Your task to perform on an android device: Open Chrome and go to the settings page Image 0: 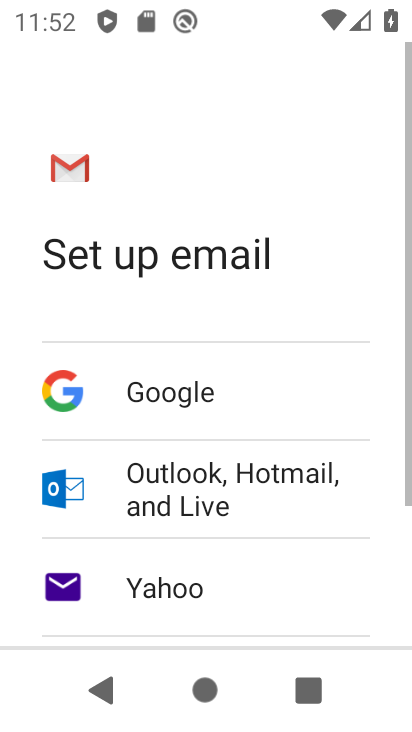
Step 0: press home button
Your task to perform on an android device: Open Chrome and go to the settings page Image 1: 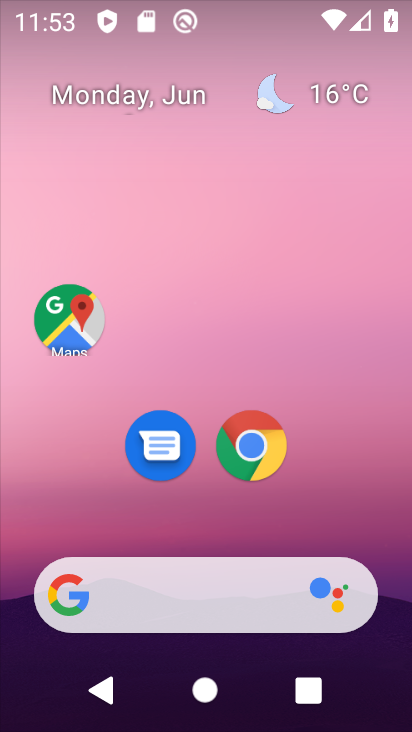
Step 1: click (253, 451)
Your task to perform on an android device: Open Chrome and go to the settings page Image 2: 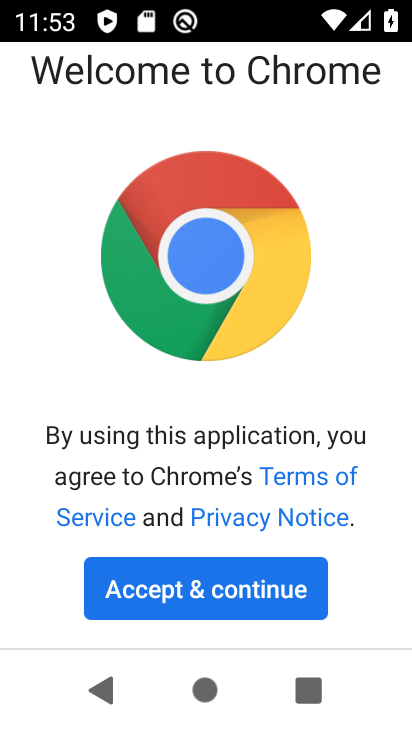
Step 2: click (184, 598)
Your task to perform on an android device: Open Chrome and go to the settings page Image 3: 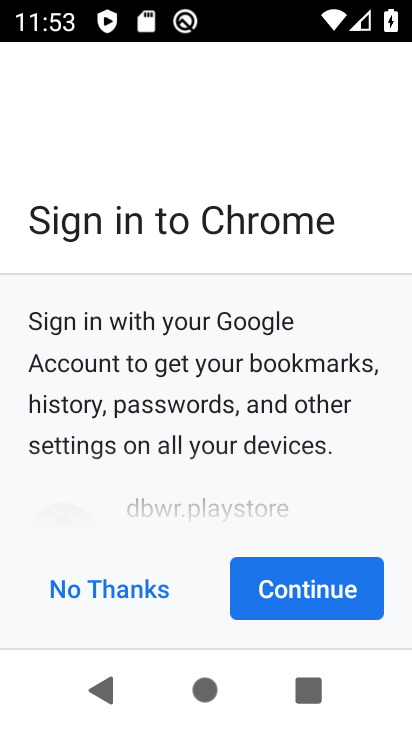
Step 3: click (311, 593)
Your task to perform on an android device: Open Chrome and go to the settings page Image 4: 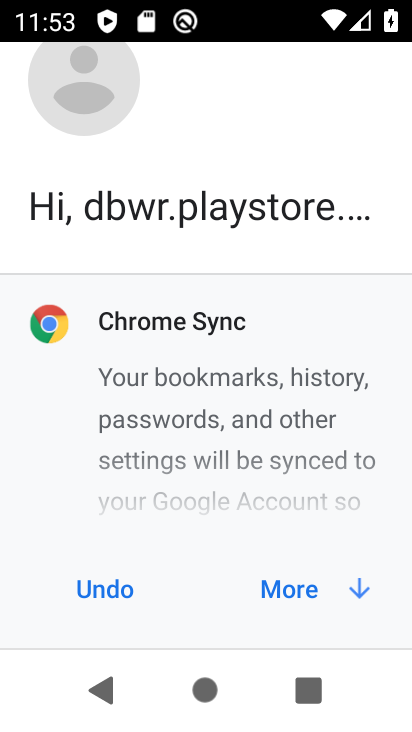
Step 4: click (284, 596)
Your task to perform on an android device: Open Chrome and go to the settings page Image 5: 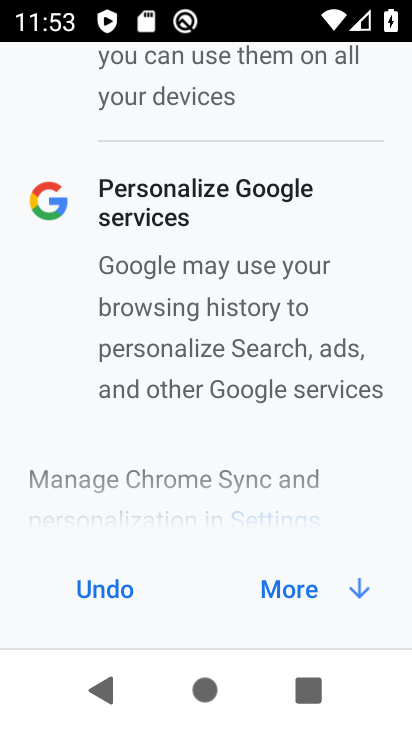
Step 5: click (285, 605)
Your task to perform on an android device: Open Chrome and go to the settings page Image 6: 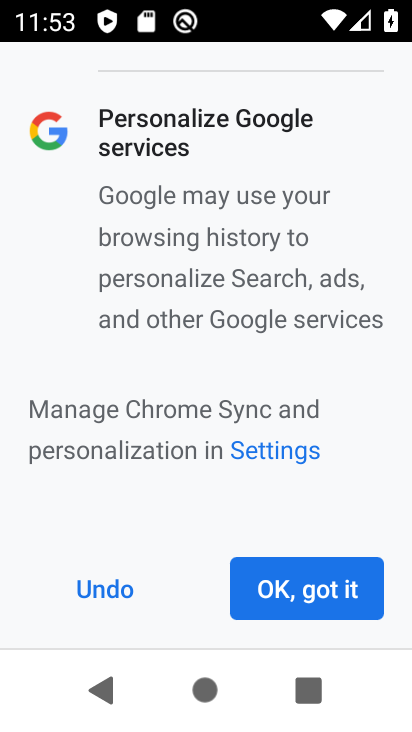
Step 6: click (279, 601)
Your task to perform on an android device: Open Chrome and go to the settings page Image 7: 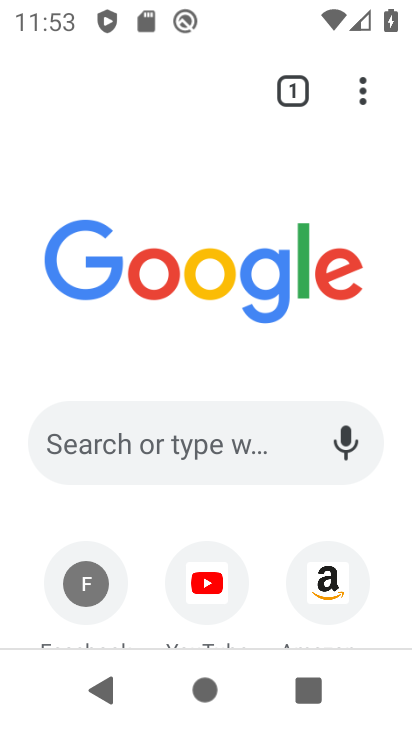
Step 7: click (375, 84)
Your task to perform on an android device: Open Chrome and go to the settings page Image 8: 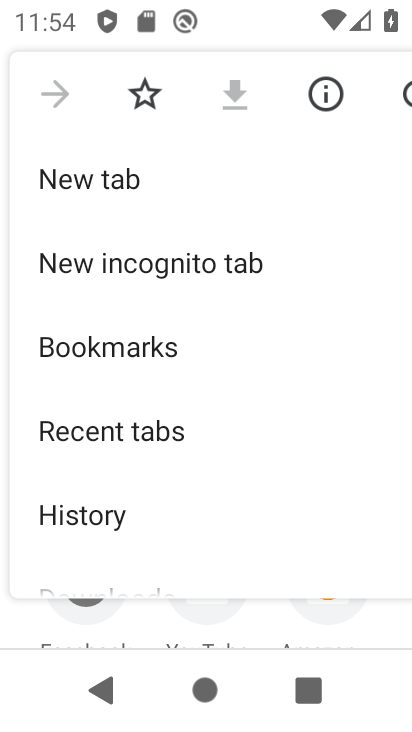
Step 8: drag from (189, 465) to (303, 13)
Your task to perform on an android device: Open Chrome and go to the settings page Image 9: 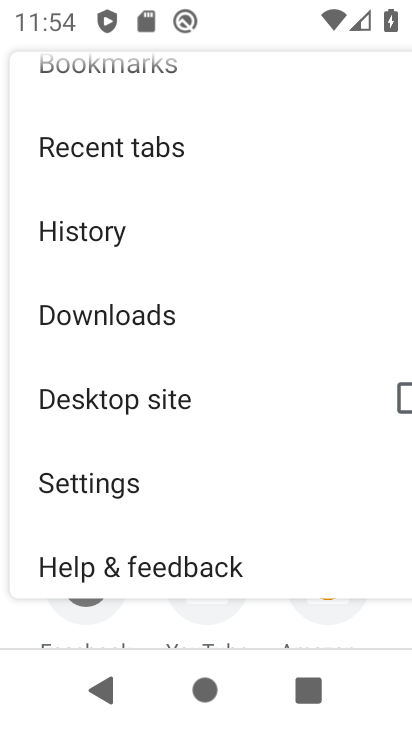
Step 9: click (97, 490)
Your task to perform on an android device: Open Chrome and go to the settings page Image 10: 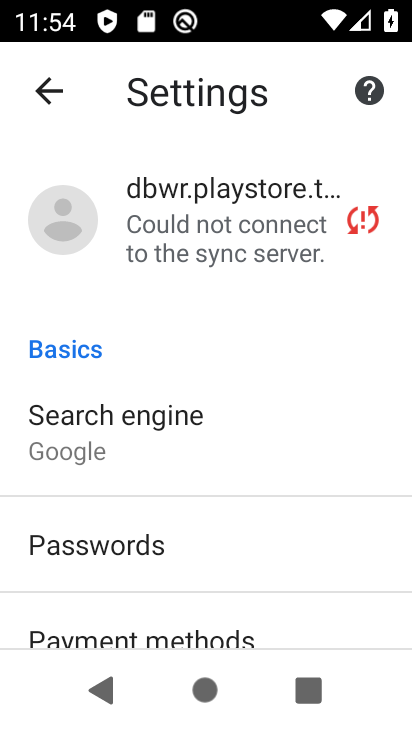
Step 10: task complete